Your task to perform on an android device: check out phone information Image 0: 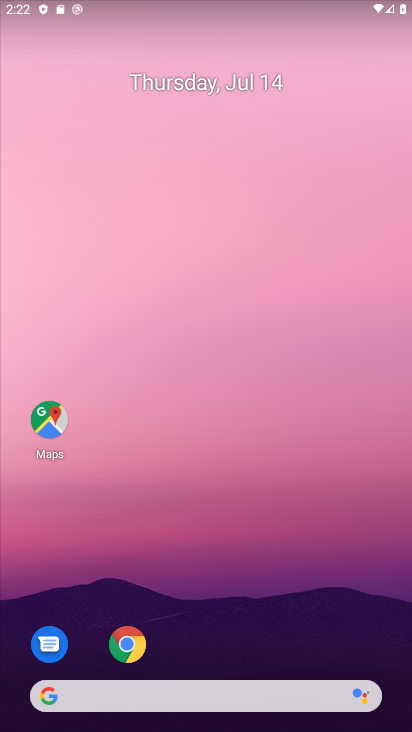
Step 0: drag from (229, 639) to (225, 38)
Your task to perform on an android device: check out phone information Image 1: 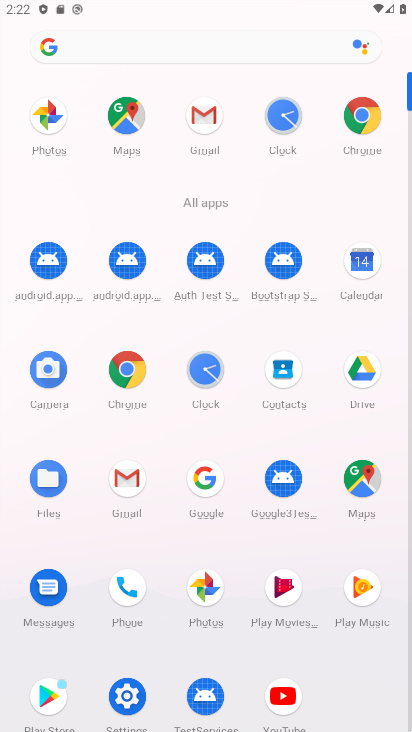
Step 1: click (125, 699)
Your task to perform on an android device: check out phone information Image 2: 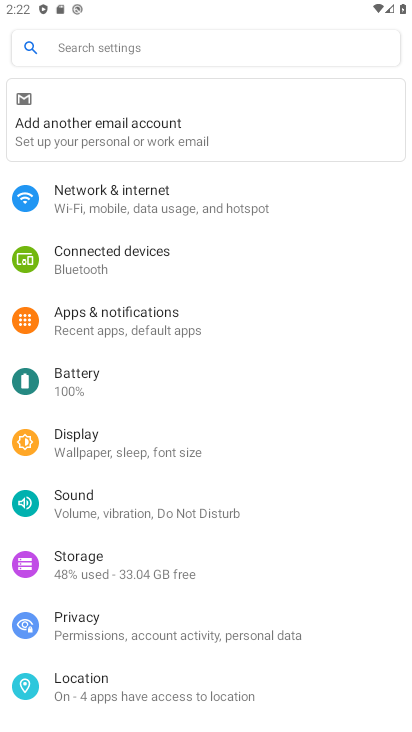
Step 2: drag from (189, 690) to (133, 159)
Your task to perform on an android device: check out phone information Image 3: 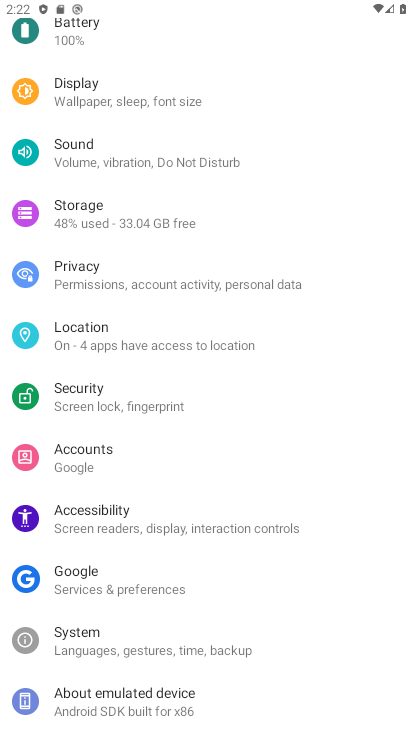
Step 3: click (174, 702)
Your task to perform on an android device: check out phone information Image 4: 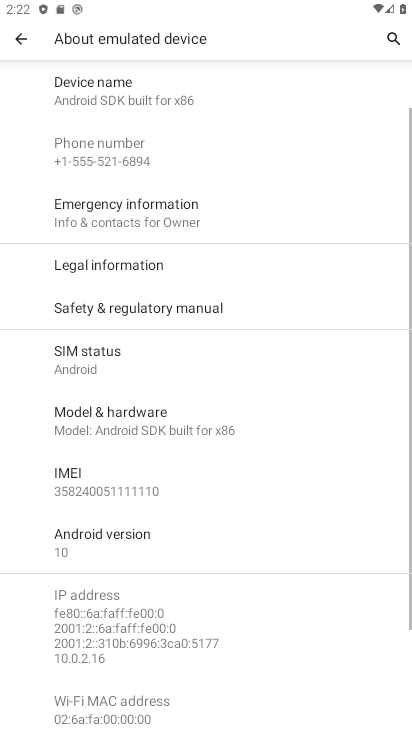
Step 4: task complete